Your task to perform on an android device: delete browsing data in the chrome app Image 0: 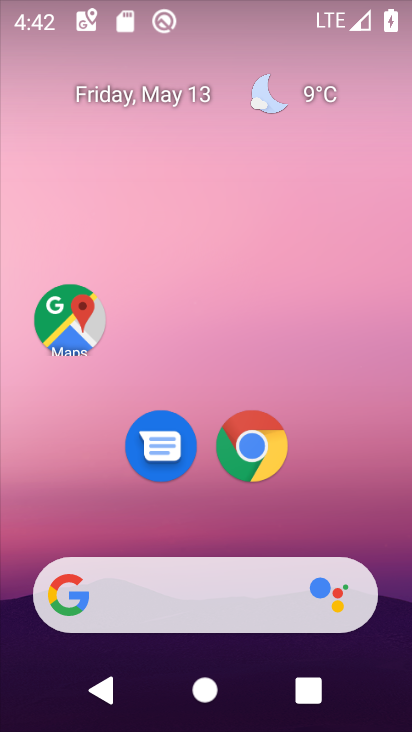
Step 0: click (259, 445)
Your task to perform on an android device: delete browsing data in the chrome app Image 1: 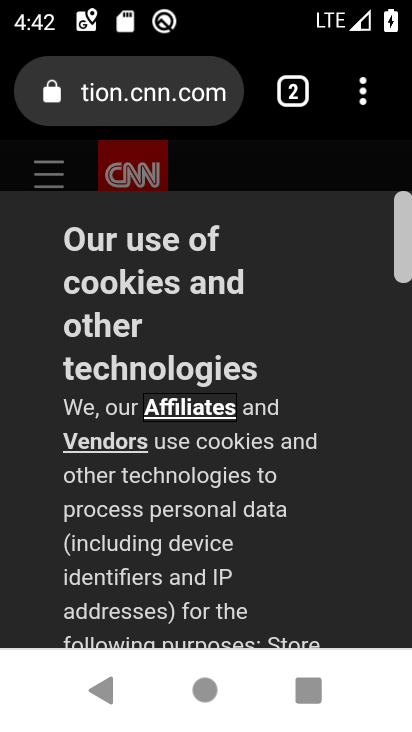
Step 1: click (365, 88)
Your task to perform on an android device: delete browsing data in the chrome app Image 2: 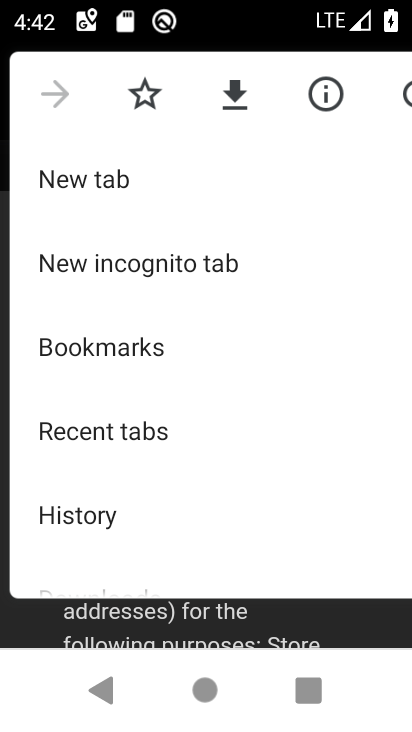
Step 2: drag from (122, 519) to (101, 135)
Your task to perform on an android device: delete browsing data in the chrome app Image 3: 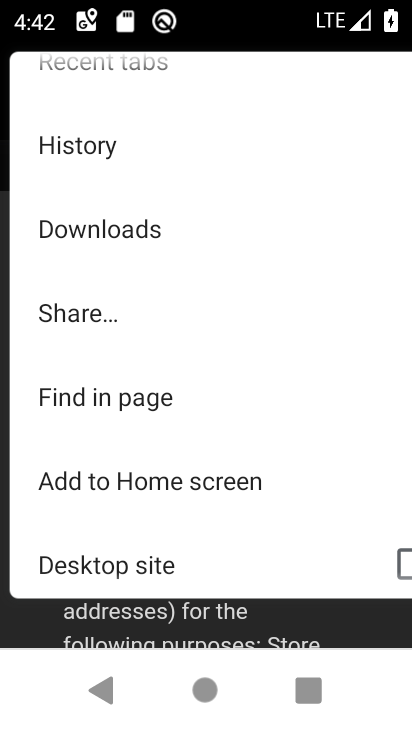
Step 3: drag from (126, 507) to (185, 203)
Your task to perform on an android device: delete browsing data in the chrome app Image 4: 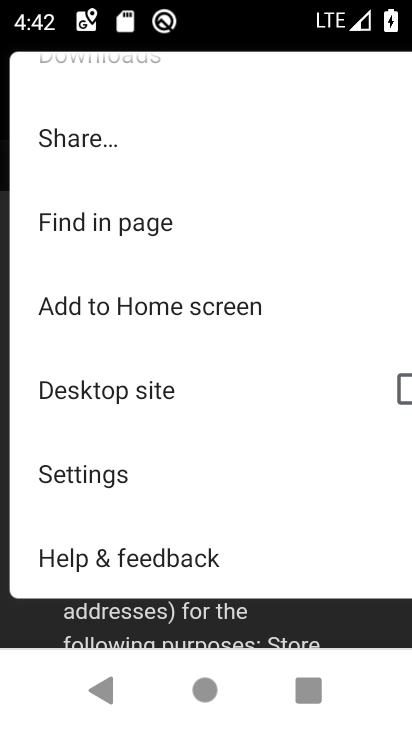
Step 4: drag from (136, 212) to (158, 487)
Your task to perform on an android device: delete browsing data in the chrome app Image 5: 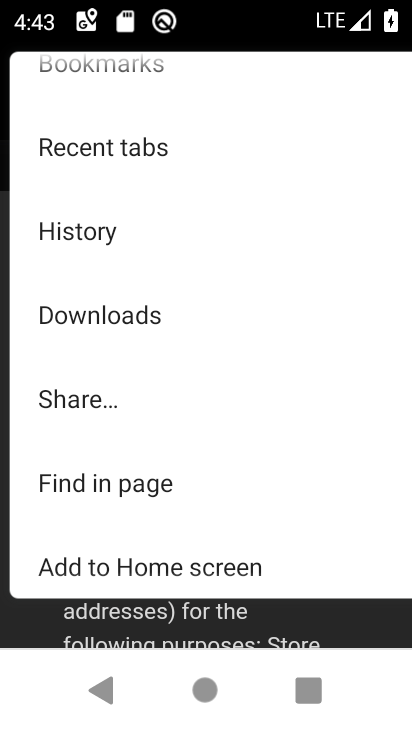
Step 5: click (150, 228)
Your task to perform on an android device: delete browsing data in the chrome app Image 6: 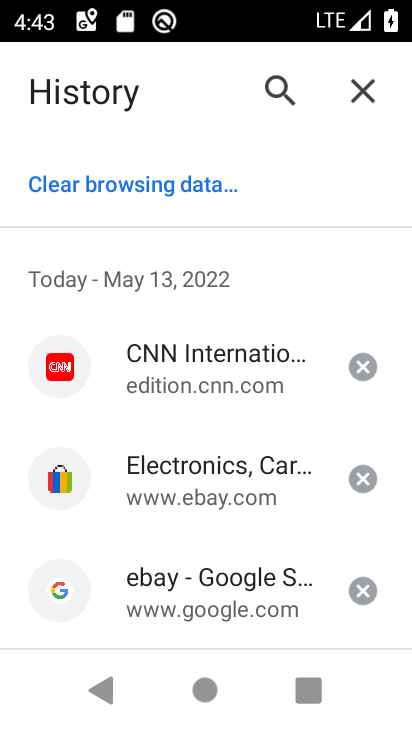
Step 6: click (117, 187)
Your task to perform on an android device: delete browsing data in the chrome app Image 7: 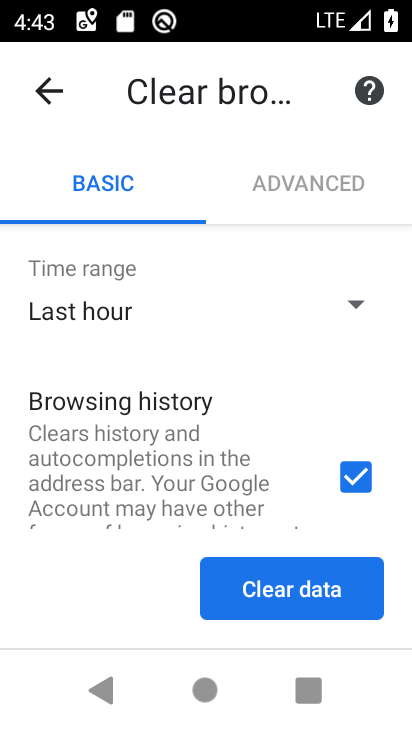
Step 7: click (254, 576)
Your task to perform on an android device: delete browsing data in the chrome app Image 8: 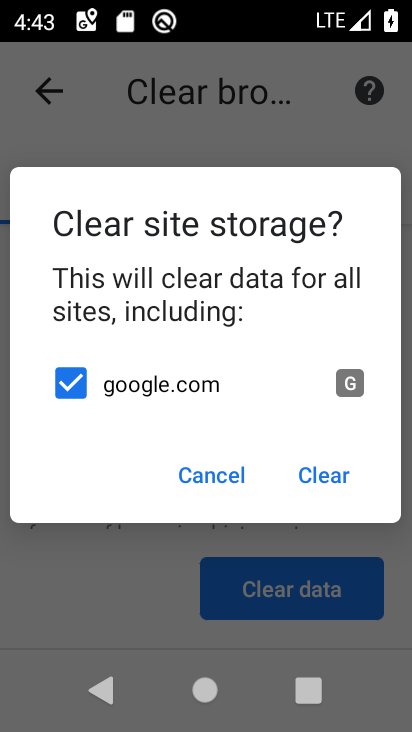
Step 8: click (324, 483)
Your task to perform on an android device: delete browsing data in the chrome app Image 9: 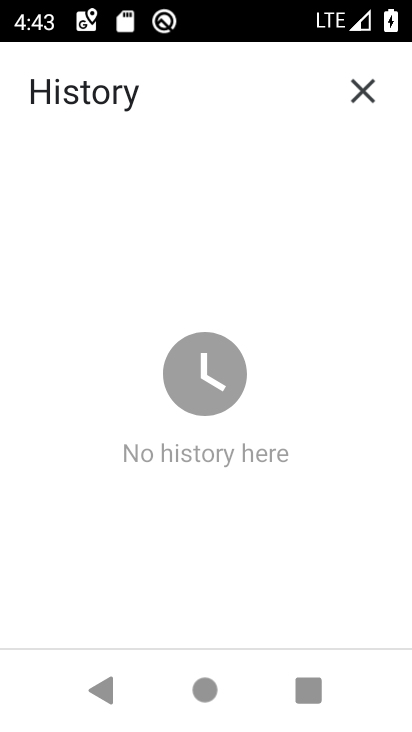
Step 9: task complete